Your task to perform on an android device: Open the map Image 0: 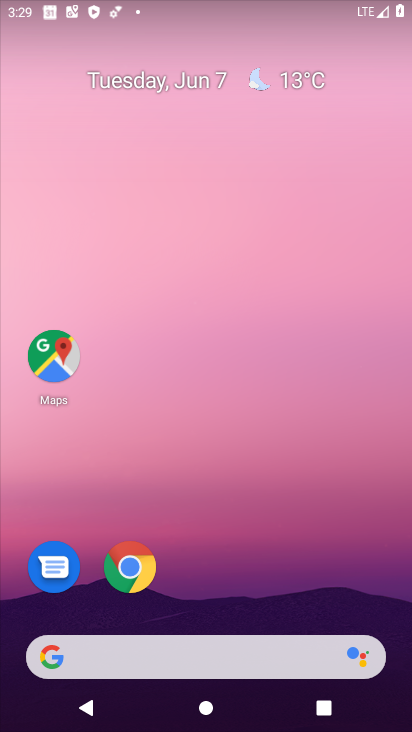
Step 0: click (43, 356)
Your task to perform on an android device: Open the map Image 1: 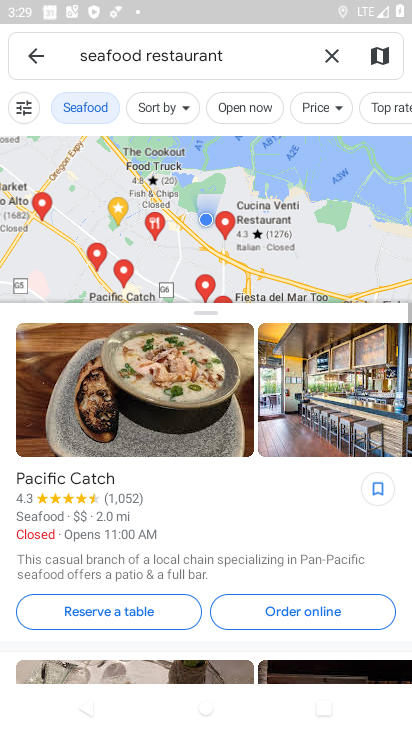
Step 1: task complete